Your task to perform on an android device: star an email in the gmail app Image 0: 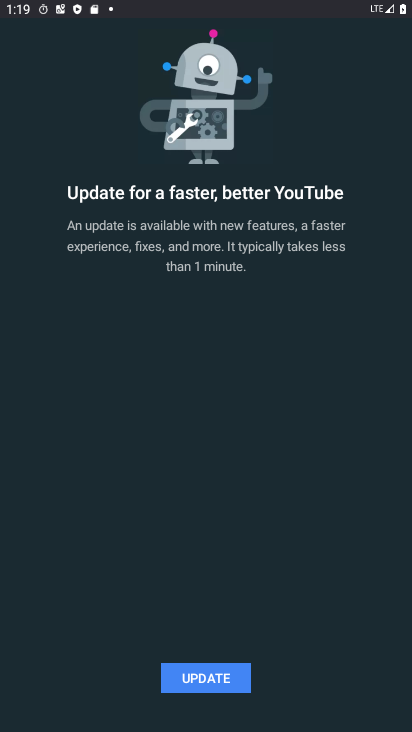
Step 0: press home button
Your task to perform on an android device: star an email in the gmail app Image 1: 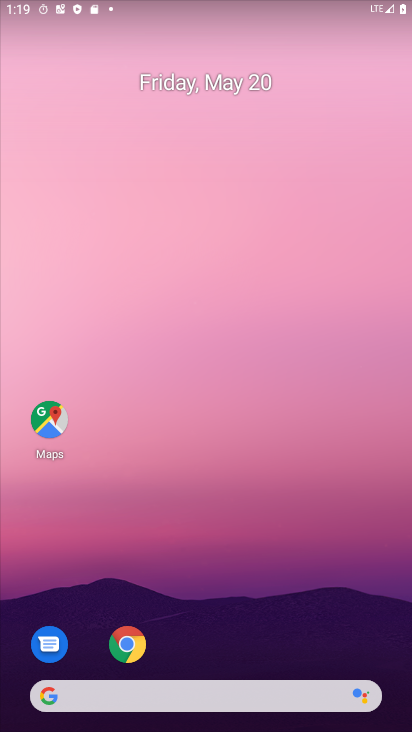
Step 1: drag from (310, 419) to (204, 16)
Your task to perform on an android device: star an email in the gmail app Image 2: 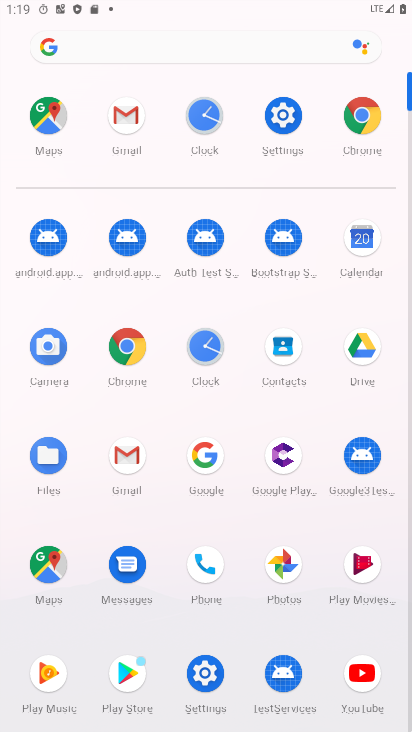
Step 2: click (120, 114)
Your task to perform on an android device: star an email in the gmail app Image 3: 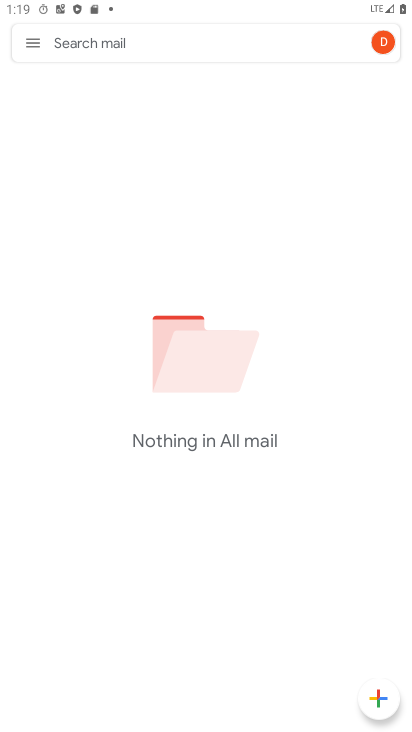
Step 3: task complete